Your task to perform on an android device: turn off sleep mode Image 0: 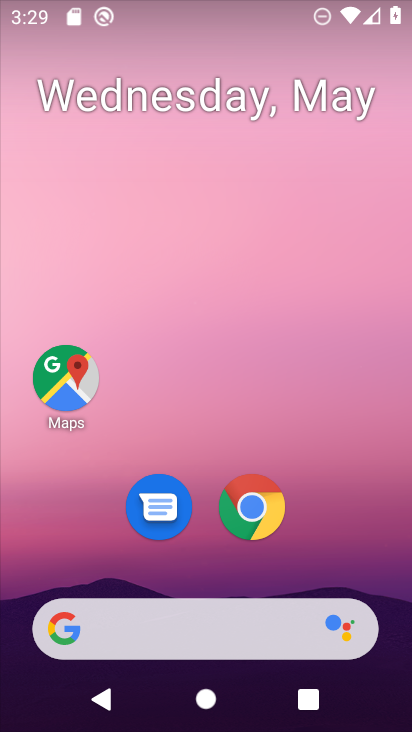
Step 0: drag from (196, 551) to (237, 160)
Your task to perform on an android device: turn off sleep mode Image 1: 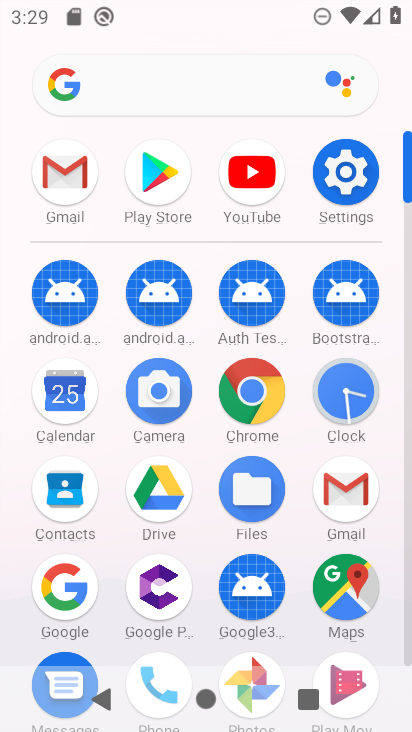
Step 1: click (351, 175)
Your task to perform on an android device: turn off sleep mode Image 2: 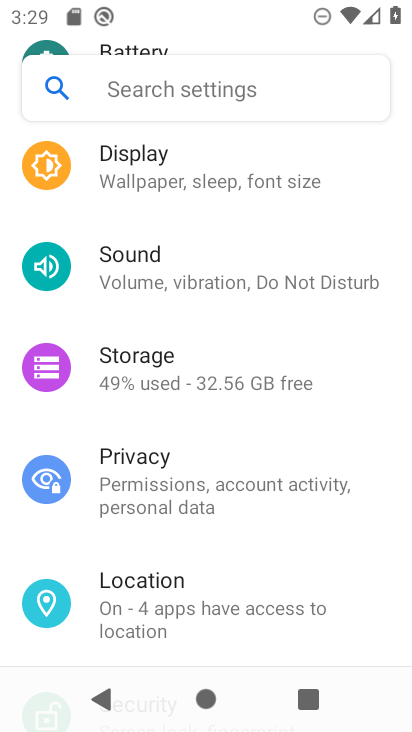
Step 2: click (233, 101)
Your task to perform on an android device: turn off sleep mode Image 3: 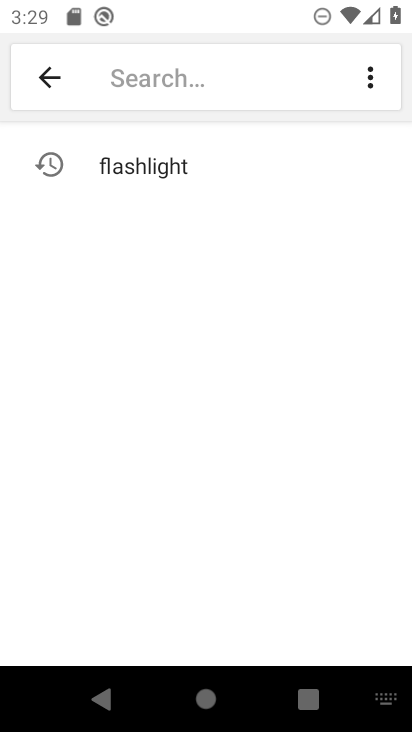
Step 3: type "sleep mode"
Your task to perform on an android device: turn off sleep mode Image 4: 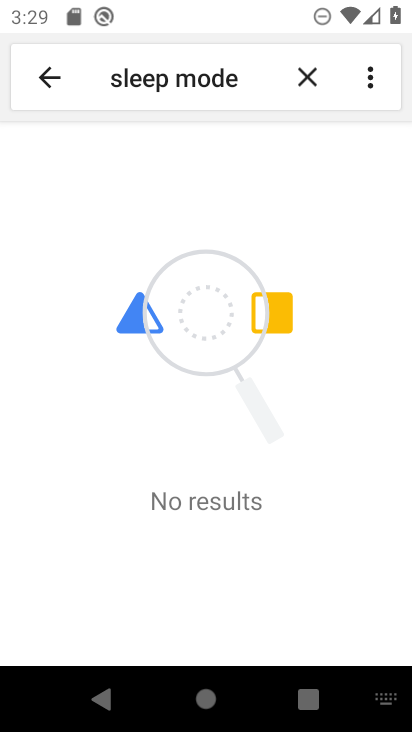
Step 4: click (234, 200)
Your task to perform on an android device: turn off sleep mode Image 5: 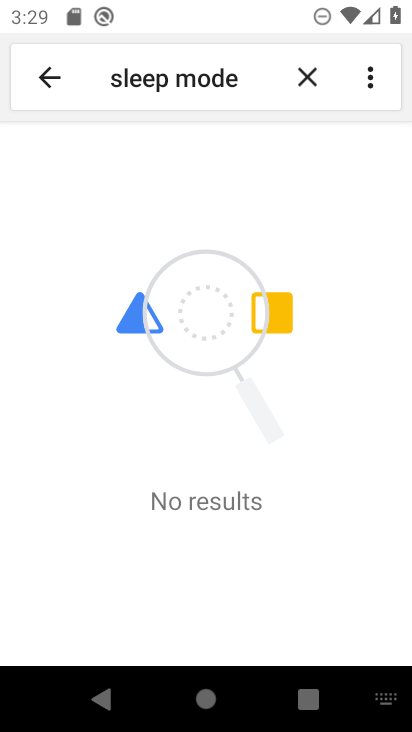
Step 5: task complete